Your task to perform on an android device: visit the assistant section in the google photos Image 0: 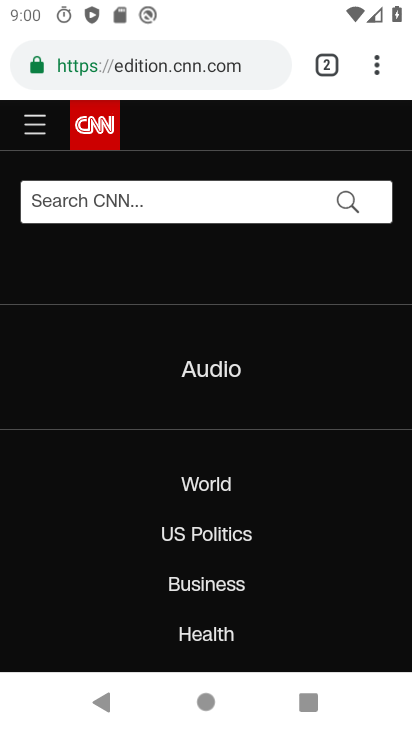
Step 0: press home button
Your task to perform on an android device: visit the assistant section in the google photos Image 1: 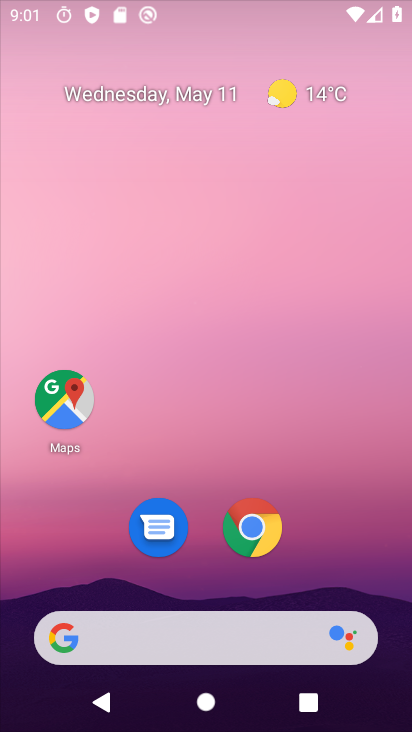
Step 1: drag from (227, 13) to (160, 6)
Your task to perform on an android device: visit the assistant section in the google photos Image 2: 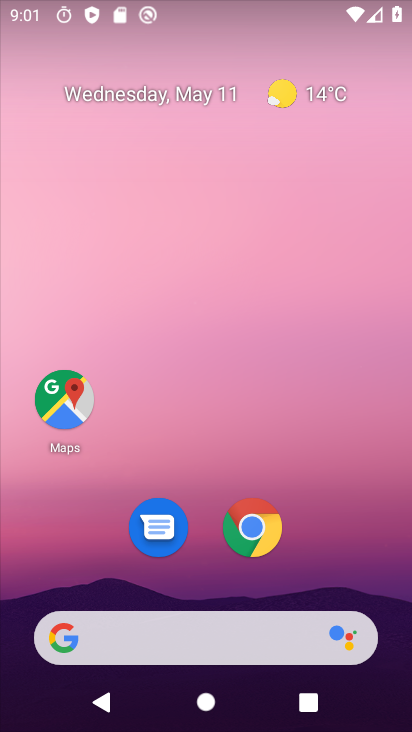
Step 2: drag from (215, 564) to (237, 4)
Your task to perform on an android device: visit the assistant section in the google photos Image 3: 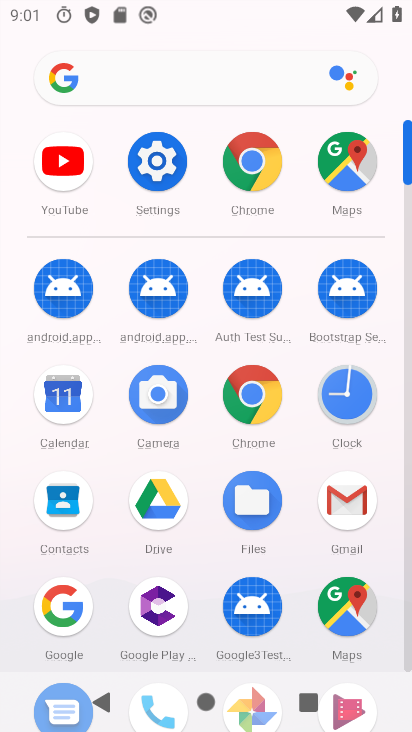
Step 3: drag from (205, 433) to (212, 254)
Your task to perform on an android device: visit the assistant section in the google photos Image 4: 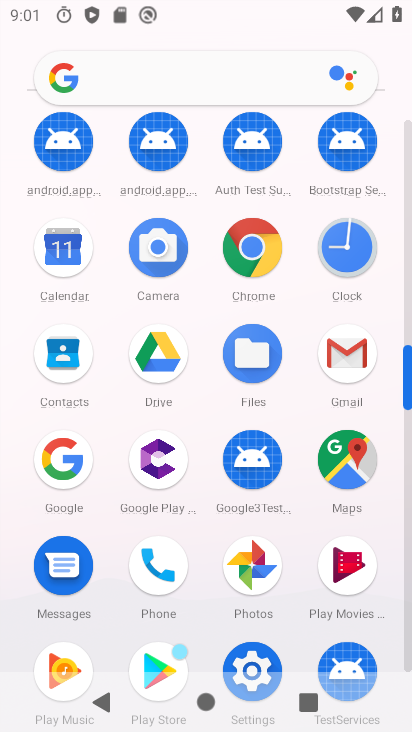
Step 4: click (267, 590)
Your task to perform on an android device: visit the assistant section in the google photos Image 5: 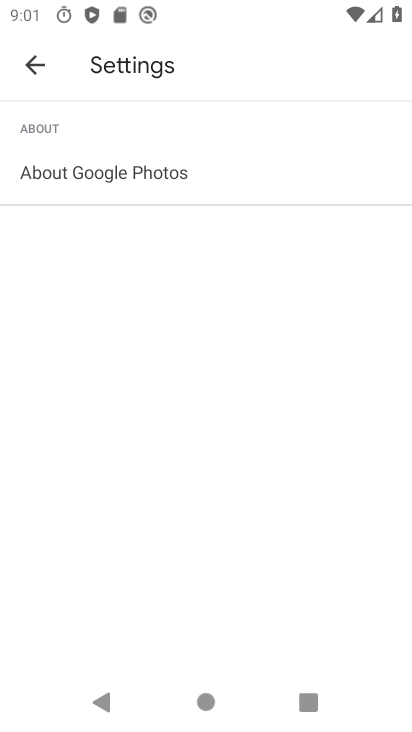
Step 5: click (23, 65)
Your task to perform on an android device: visit the assistant section in the google photos Image 6: 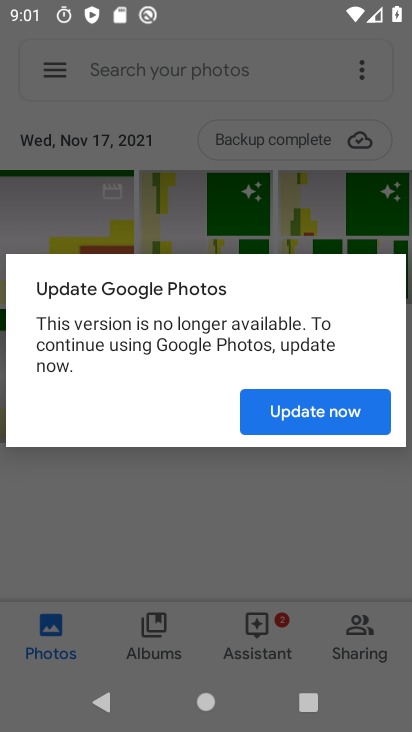
Step 6: task complete